Your task to perform on an android device: Open Google Maps Image 0: 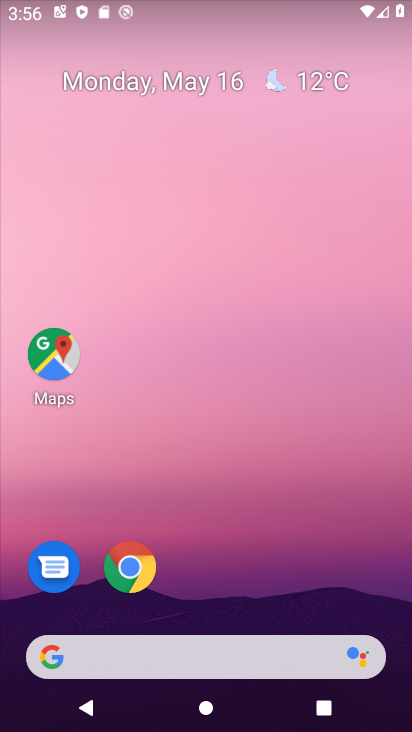
Step 0: drag from (316, 561) to (223, 18)
Your task to perform on an android device: Open Google Maps Image 1: 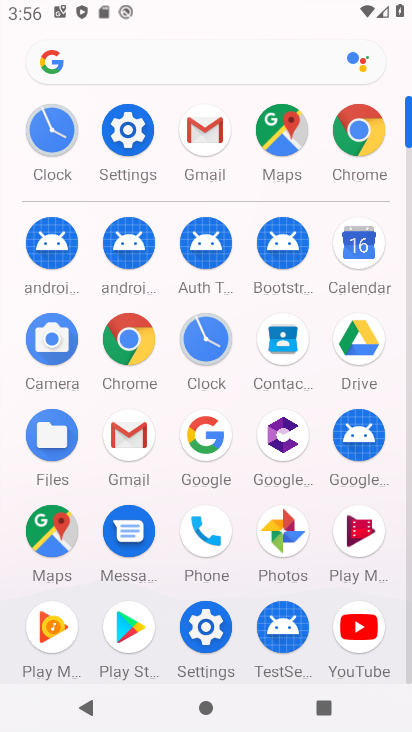
Step 1: click (279, 128)
Your task to perform on an android device: Open Google Maps Image 2: 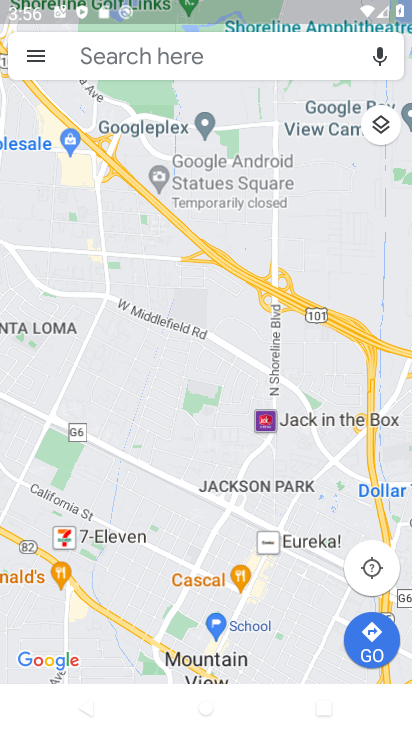
Step 2: click (44, 53)
Your task to perform on an android device: Open Google Maps Image 3: 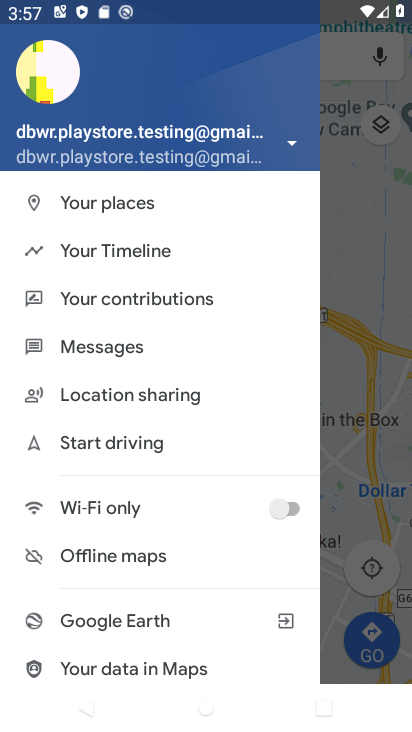
Step 3: click (373, 269)
Your task to perform on an android device: Open Google Maps Image 4: 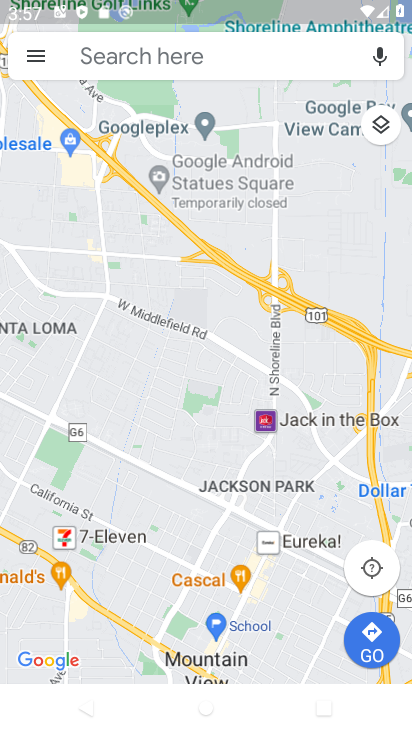
Step 4: task complete